Your task to perform on an android device: open a bookmark in the chrome app Image 0: 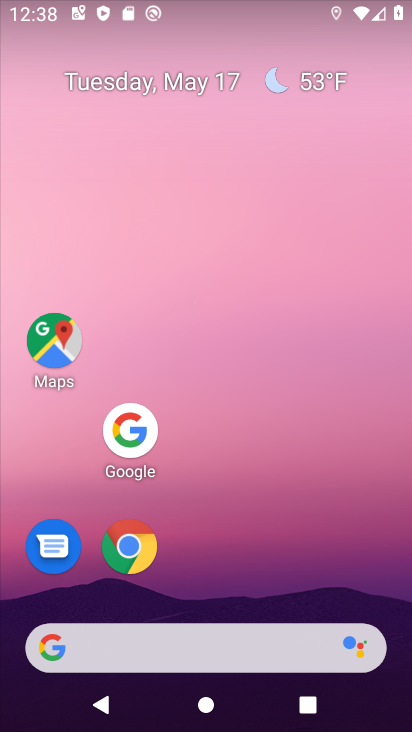
Step 0: click (115, 530)
Your task to perform on an android device: open a bookmark in the chrome app Image 1: 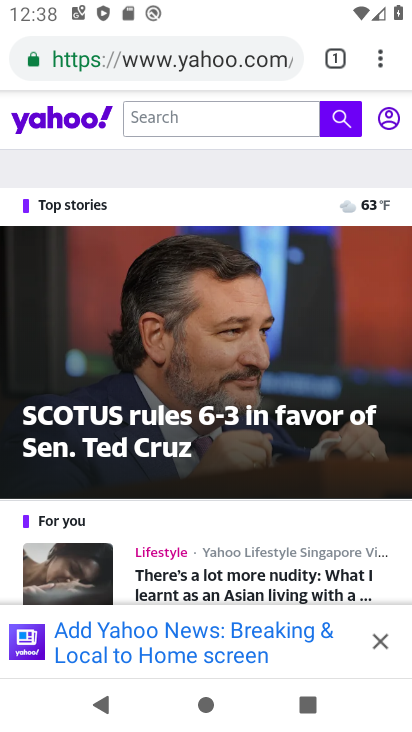
Step 1: click (372, 64)
Your task to perform on an android device: open a bookmark in the chrome app Image 2: 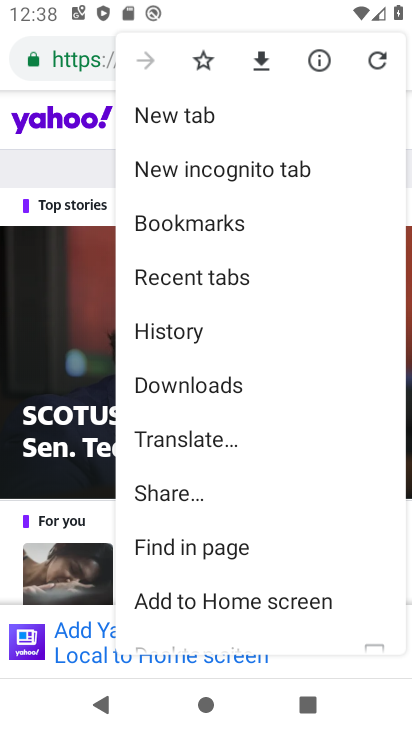
Step 2: click (209, 221)
Your task to perform on an android device: open a bookmark in the chrome app Image 3: 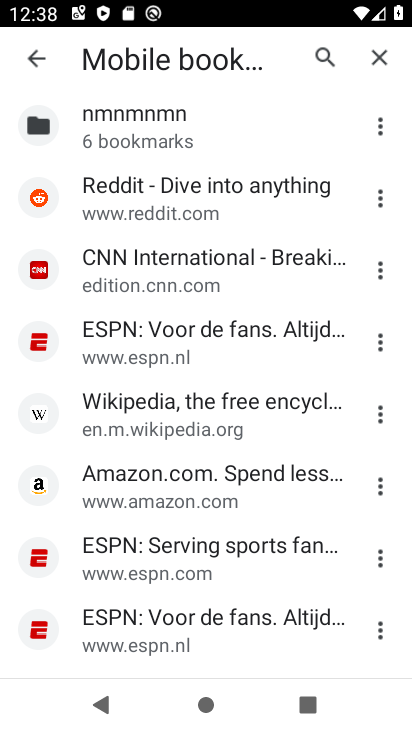
Step 3: click (159, 489)
Your task to perform on an android device: open a bookmark in the chrome app Image 4: 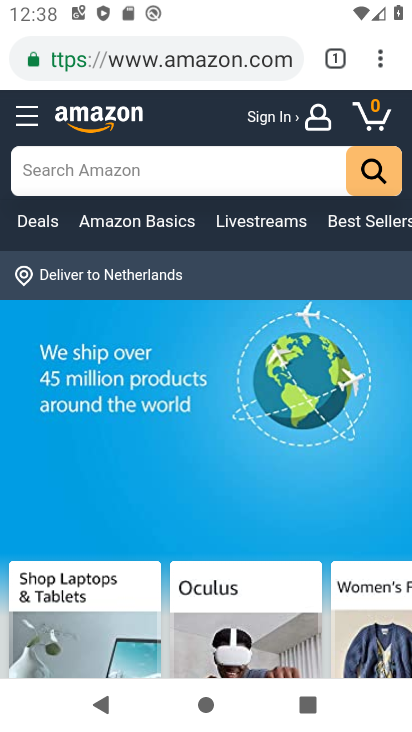
Step 4: task complete